Your task to perform on an android device: What's the news in Venezuela? Image 0: 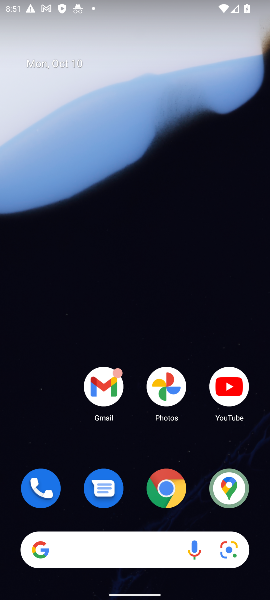
Step 0: click (164, 485)
Your task to perform on an android device: What's the news in Venezuela? Image 1: 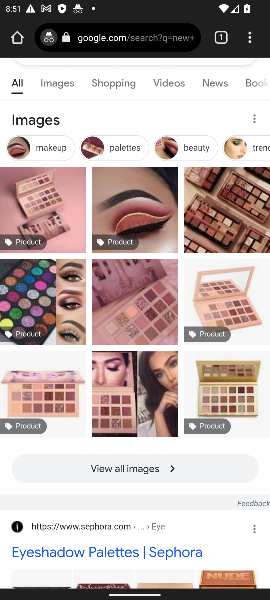
Step 1: click (97, 38)
Your task to perform on an android device: What's the news in Venezuela? Image 2: 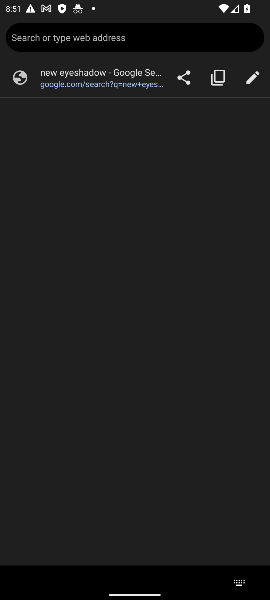
Step 2: type "news in Venezuela"
Your task to perform on an android device: What's the news in Venezuela? Image 3: 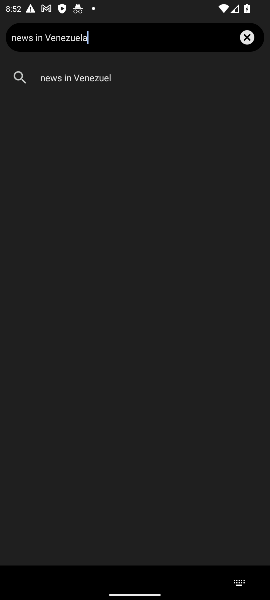
Step 3: press enter
Your task to perform on an android device: What's the news in Venezuela? Image 4: 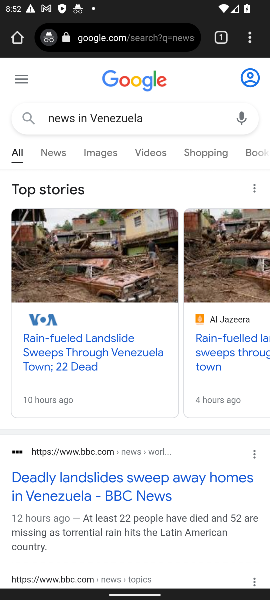
Step 4: task complete